Your task to perform on an android device: manage bookmarks in the chrome app Image 0: 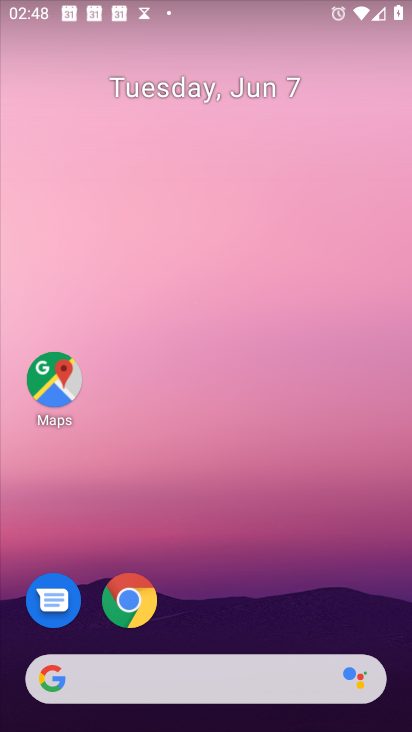
Step 0: click (134, 602)
Your task to perform on an android device: manage bookmarks in the chrome app Image 1: 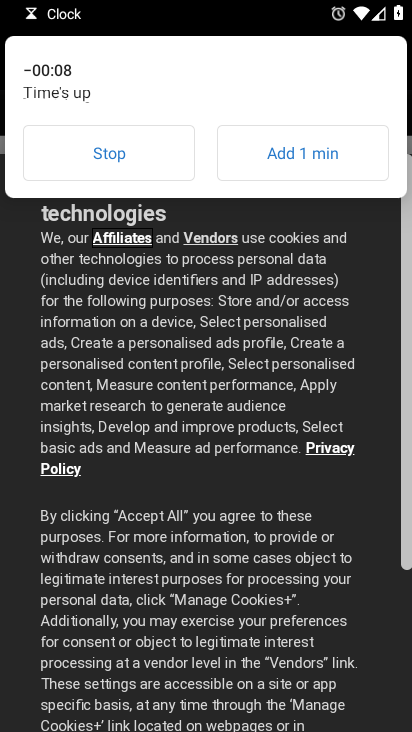
Step 1: click (147, 154)
Your task to perform on an android device: manage bookmarks in the chrome app Image 2: 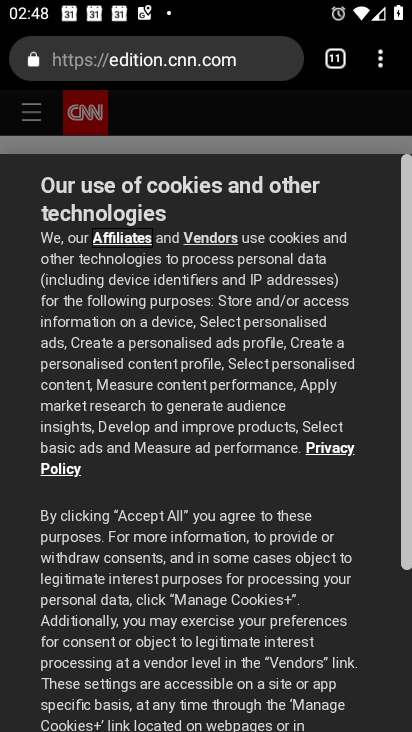
Step 2: click (381, 62)
Your task to perform on an android device: manage bookmarks in the chrome app Image 3: 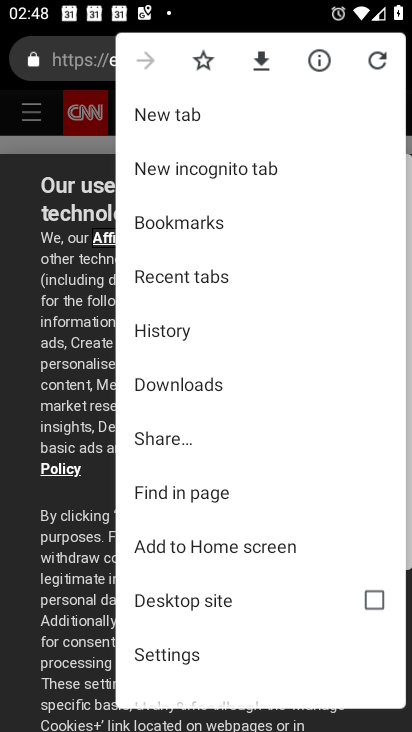
Step 3: click (209, 217)
Your task to perform on an android device: manage bookmarks in the chrome app Image 4: 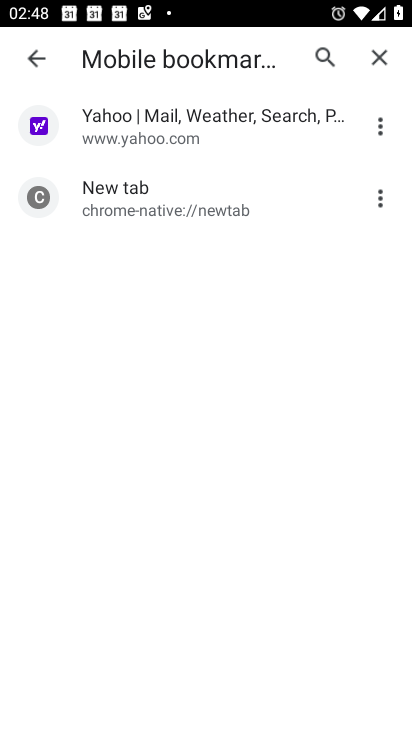
Step 4: click (381, 123)
Your task to perform on an android device: manage bookmarks in the chrome app Image 5: 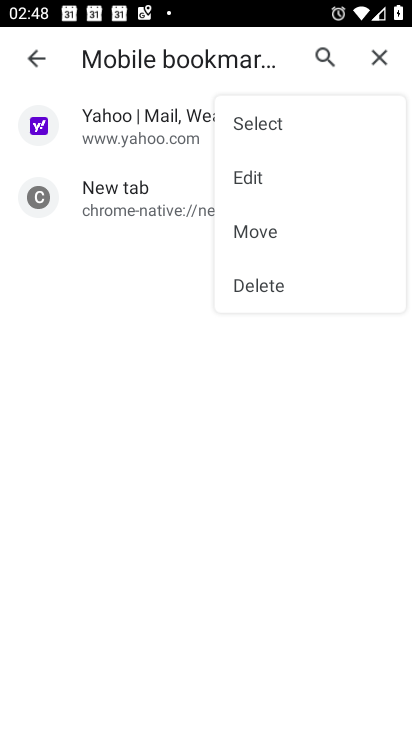
Step 5: click (252, 176)
Your task to perform on an android device: manage bookmarks in the chrome app Image 6: 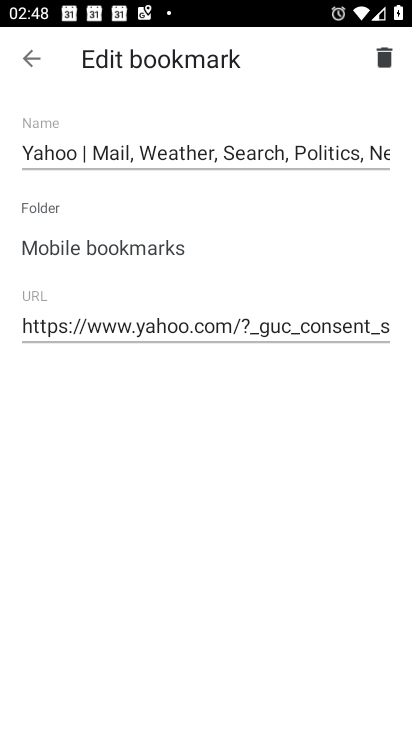
Step 6: click (128, 148)
Your task to perform on an android device: manage bookmarks in the chrome app Image 7: 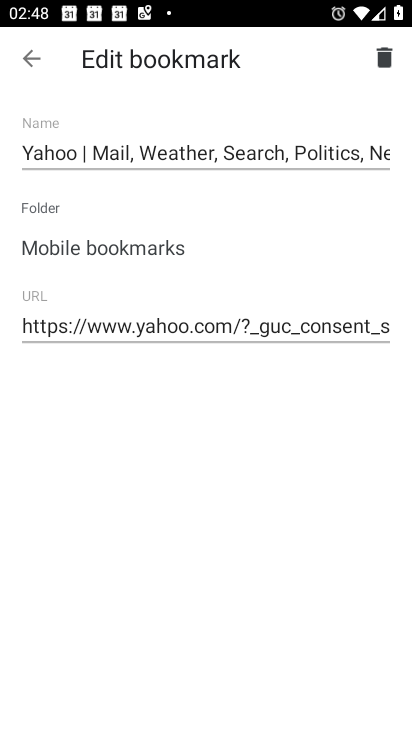
Step 7: click (128, 148)
Your task to perform on an android device: manage bookmarks in the chrome app Image 8: 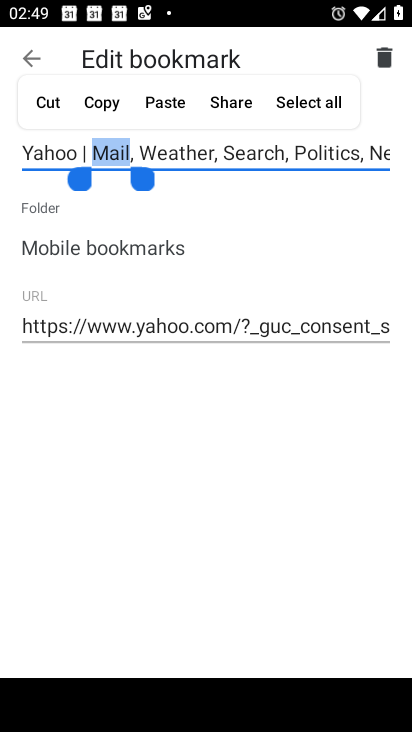
Step 8: click (45, 96)
Your task to perform on an android device: manage bookmarks in the chrome app Image 9: 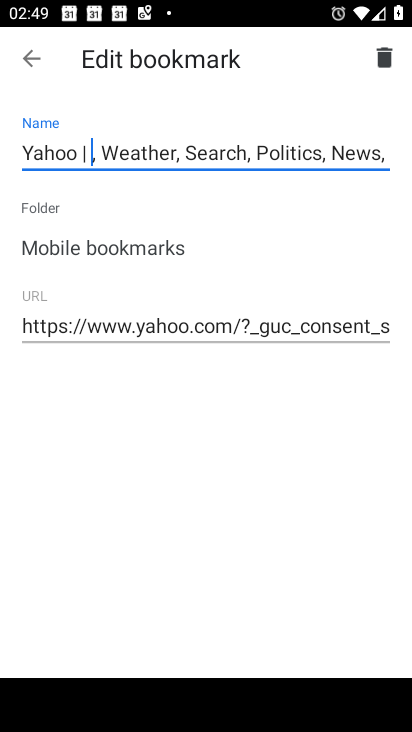
Step 9: click (30, 54)
Your task to perform on an android device: manage bookmarks in the chrome app Image 10: 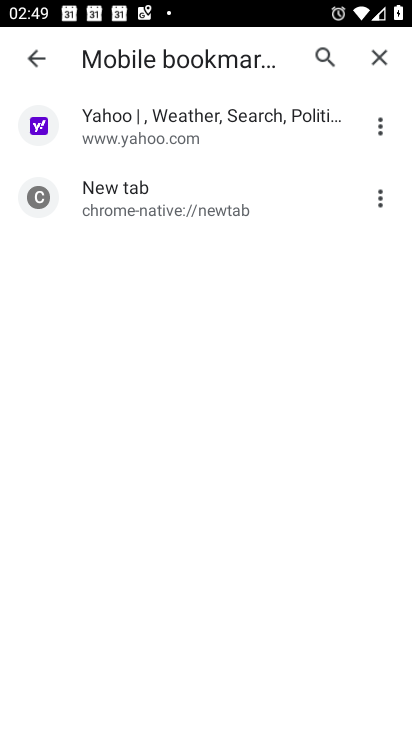
Step 10: task complete